Your task to perform on an android device: change the upload size in google photos Image 0: 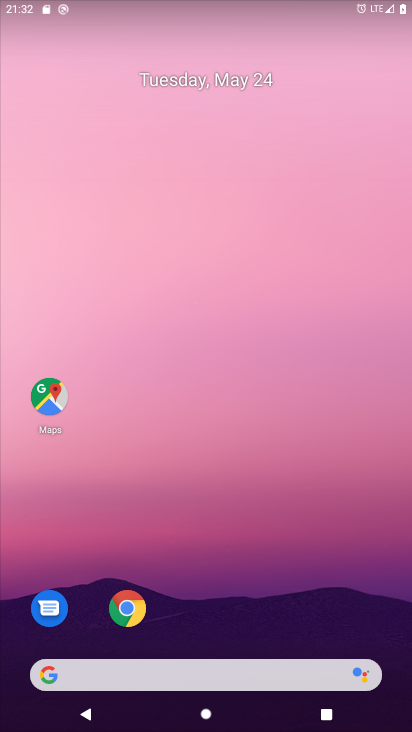
Step 0: drag from (220, 622) to (258, 45)
Your task to perform on an android device: change the upload size in google photos Image 1: 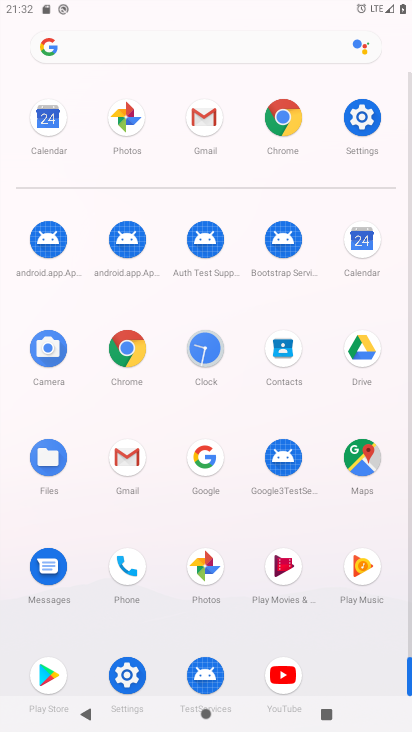
Step 1: click (213, 581)
Your task to perform on an android device: change the upload size in google photos Image 2: 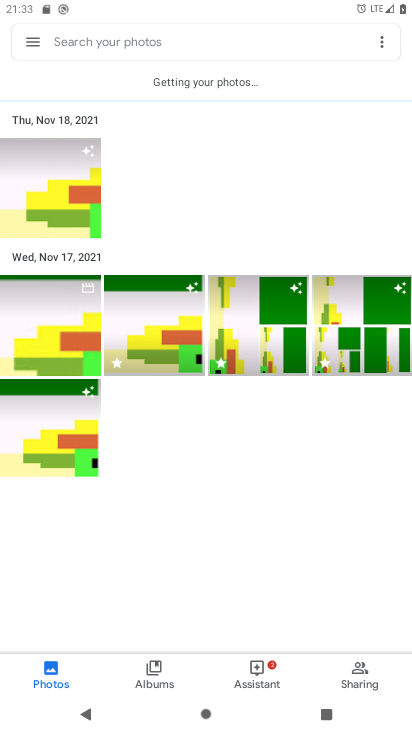
Step 2: click (26, 40)
Your task to perform on an android device: change the upload size in google photos Image 3: 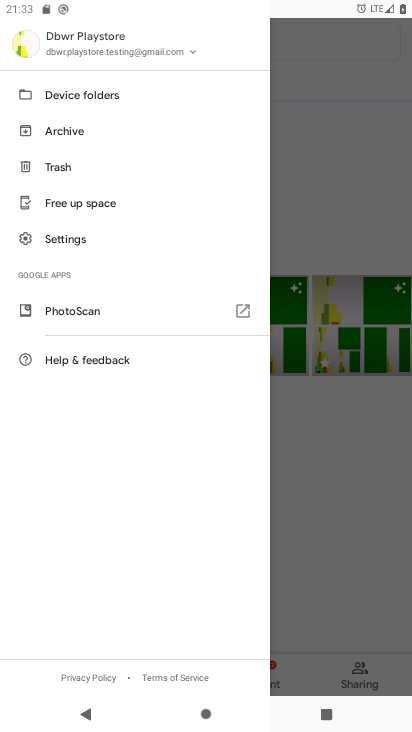
Step 3: click (71, 237)
Your task to perform on an android device: change the upload size in google photos Image 4: 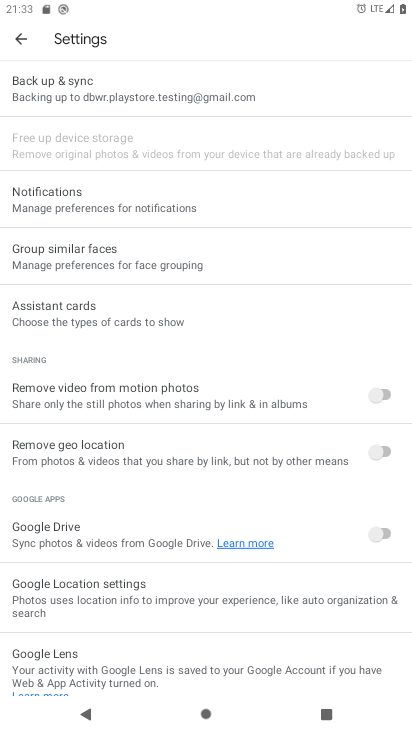
Step 4: click (119, 87)
Your task to perform on an android device: change the upload size in google photos Image 5: 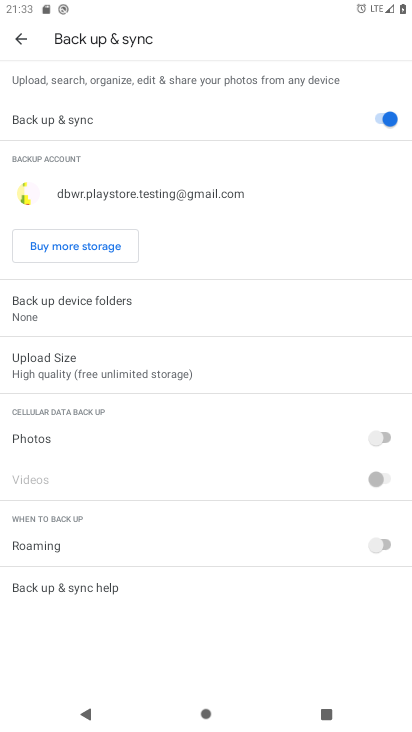
Step 5: click (101, 367)
Your task to perform on an android device: change the upload size in google photos Image 6: 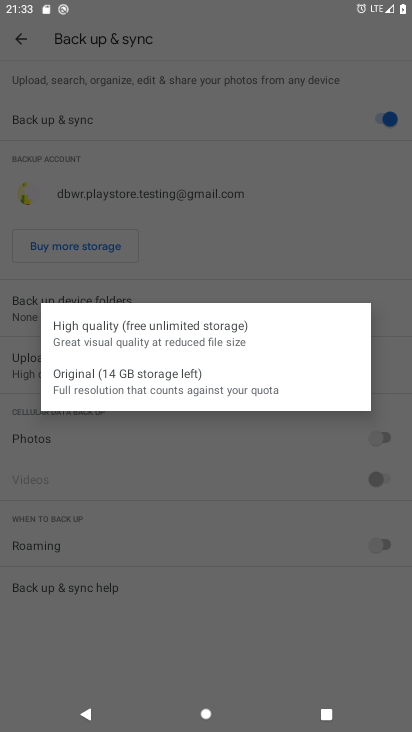
Step 6: click (109, 380)
Your task to perform on an android device: change the upload size in google photos Image 7: 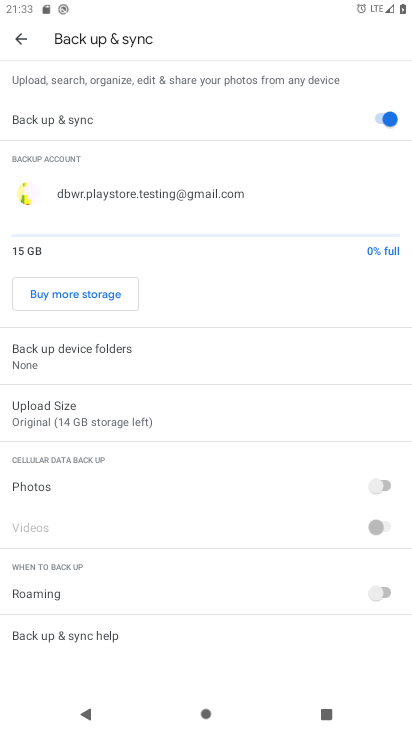
Step 7: task complete